Your task to perform on an android device: change alarm snooze length Image 0: 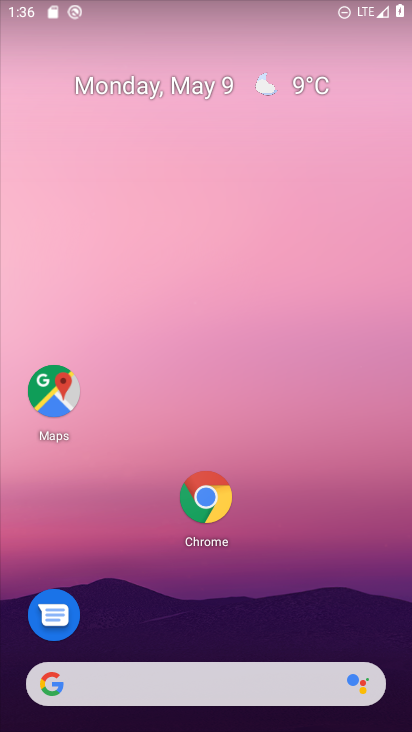
Step 0: drag from (363, 586) to (314, 151)
Your task to perform on an android device: change alarm snooze length Image 1: 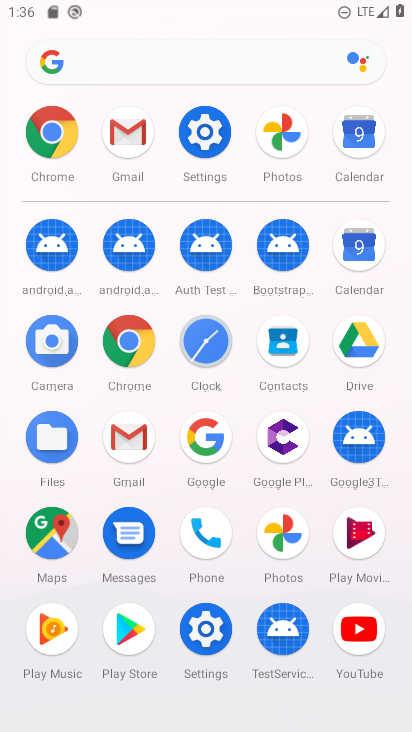
Step 1: click (201, 343)
Your task to perform on an android device: change alarm snooze length Image 2: 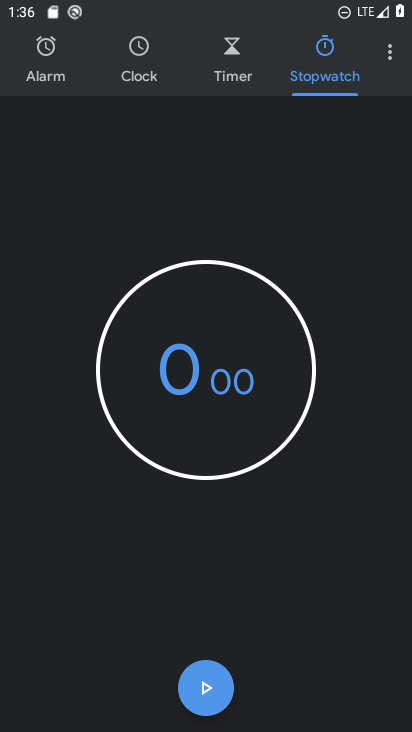
Step 2: click (385, 42)
Your task to perform on an android device: change alarm snooze length Image 3: 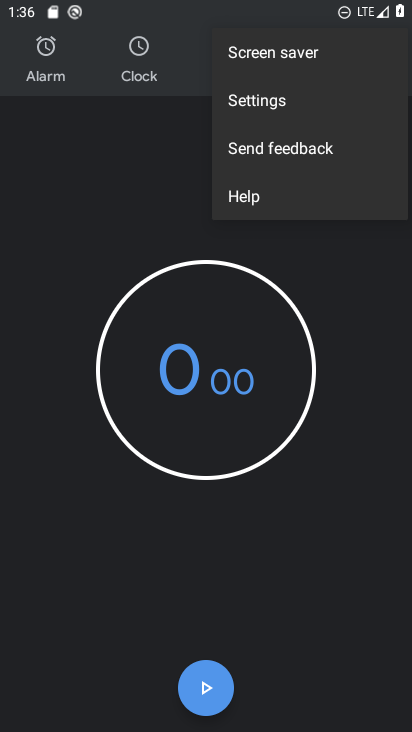
Step 3: click (265, 90)
Your task to perform on an android device: change alarm snooze length Image 4: 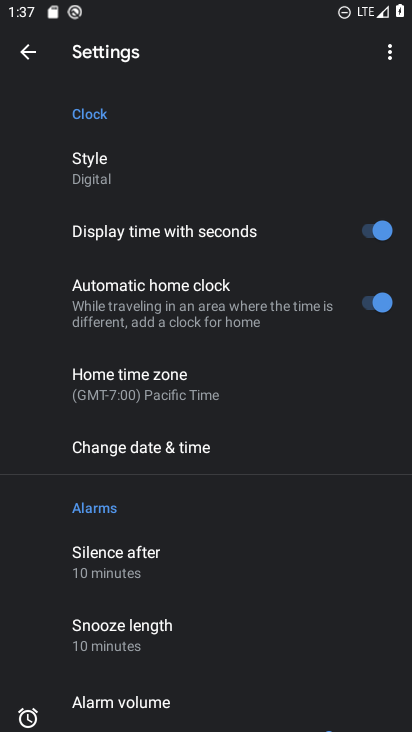
Step 4: click (160, 622)
Your task to perform on an android device: change alarm snooze length Image 5: 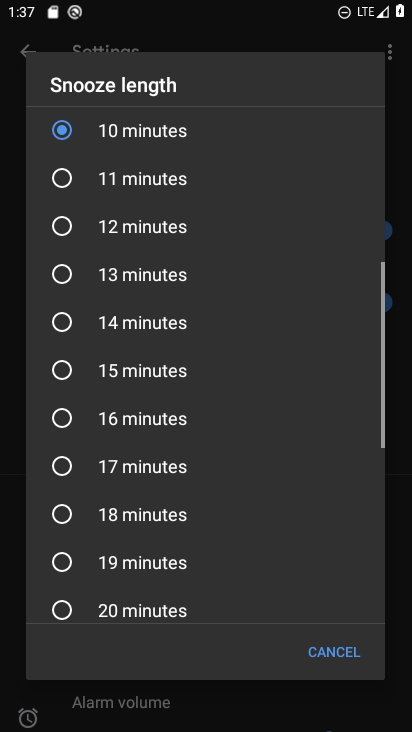
Step 5: click (170, 178)
Your task to perform on an android device: change alarm snooze length Image 6: 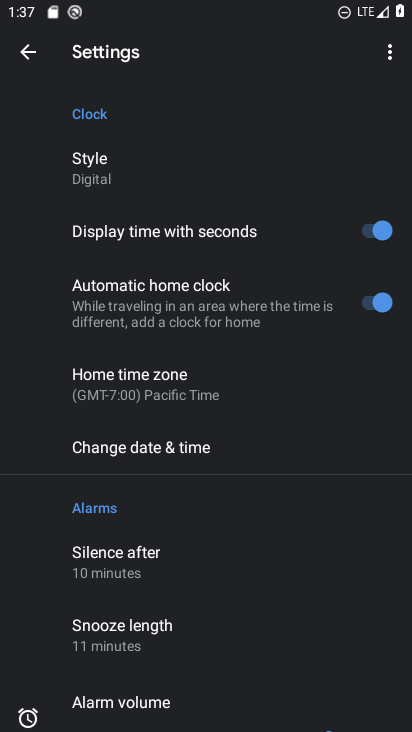
Step 6: task complete